Your task to perform on an android device: toggle translation in the chrome app Image 0: 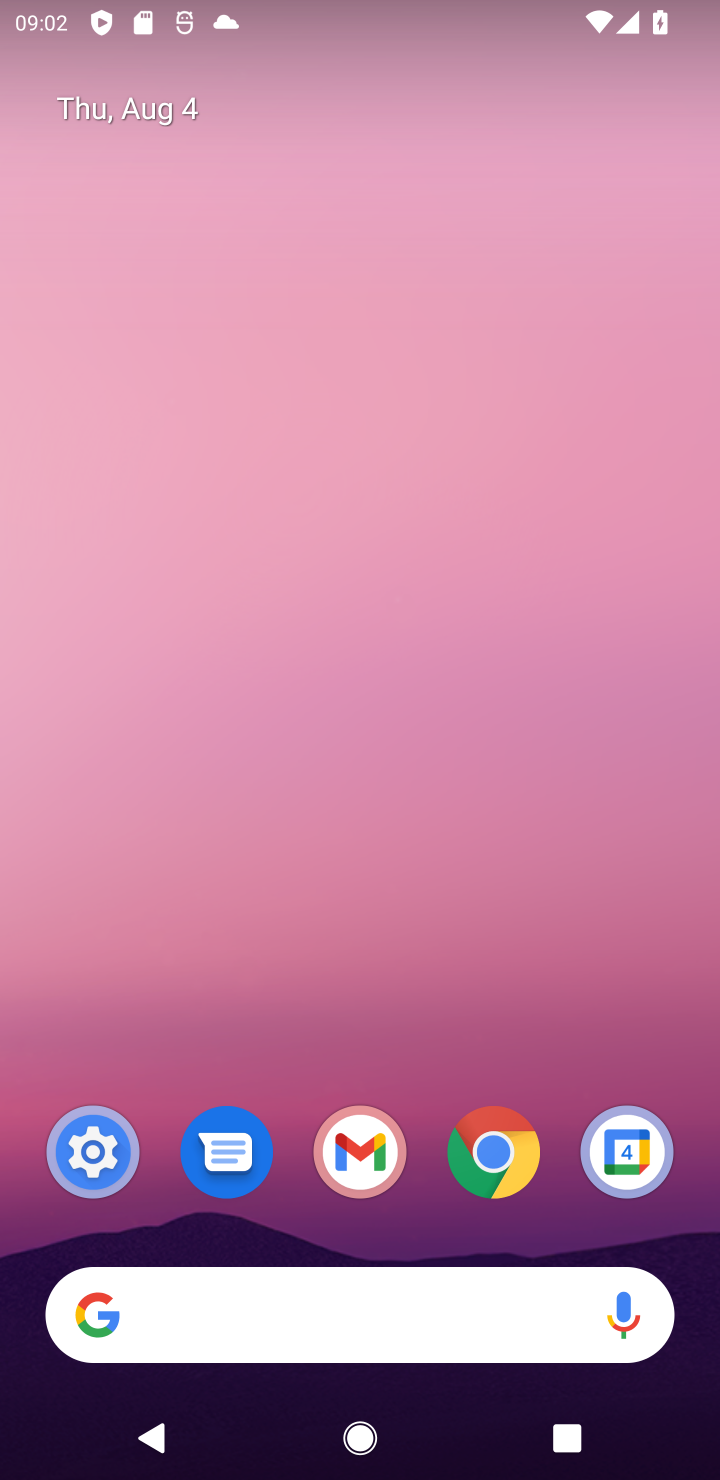
Step 0: click (489, 1168)
Your task to perform on an android device: toggle translation in the chrome app Image 1: 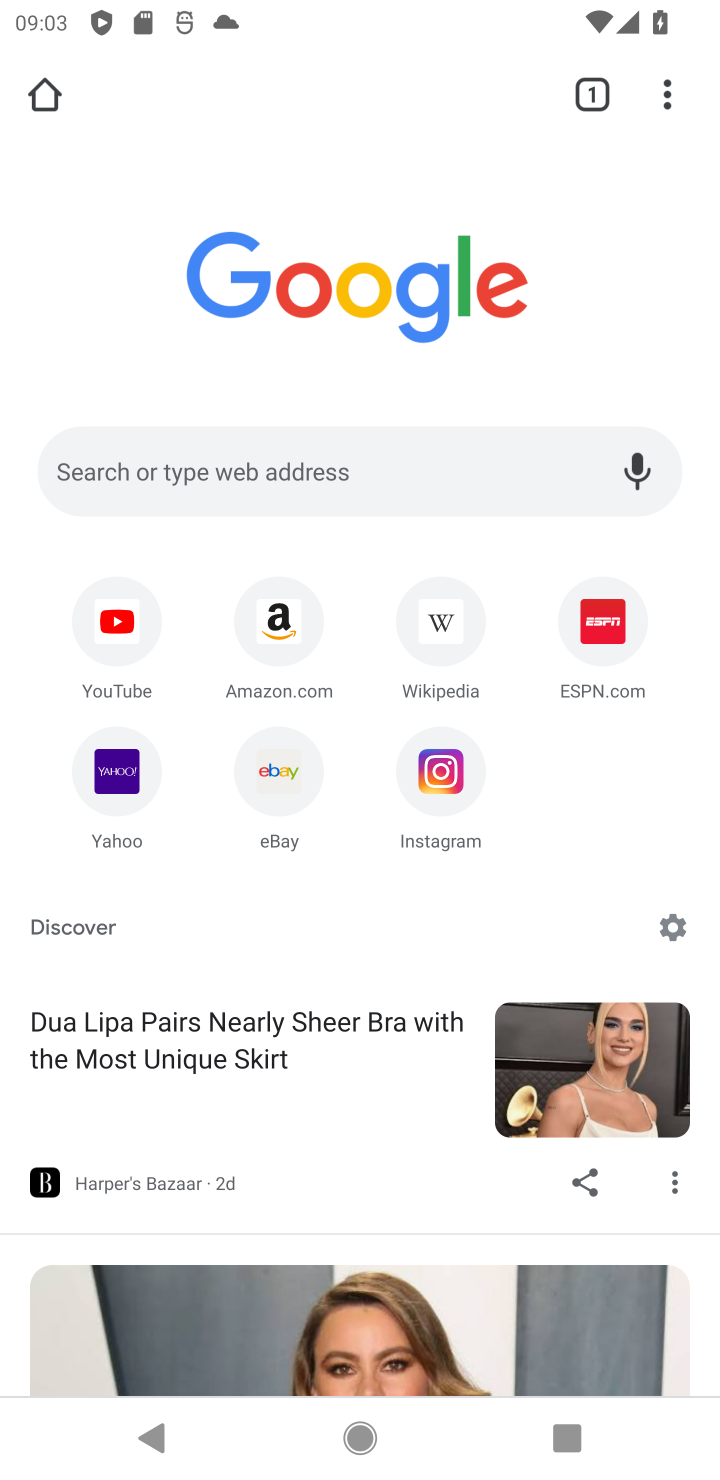
Step 1: click (661, 77)
Your task to perform on an android device: toggle translation in the chrome app Image 2: 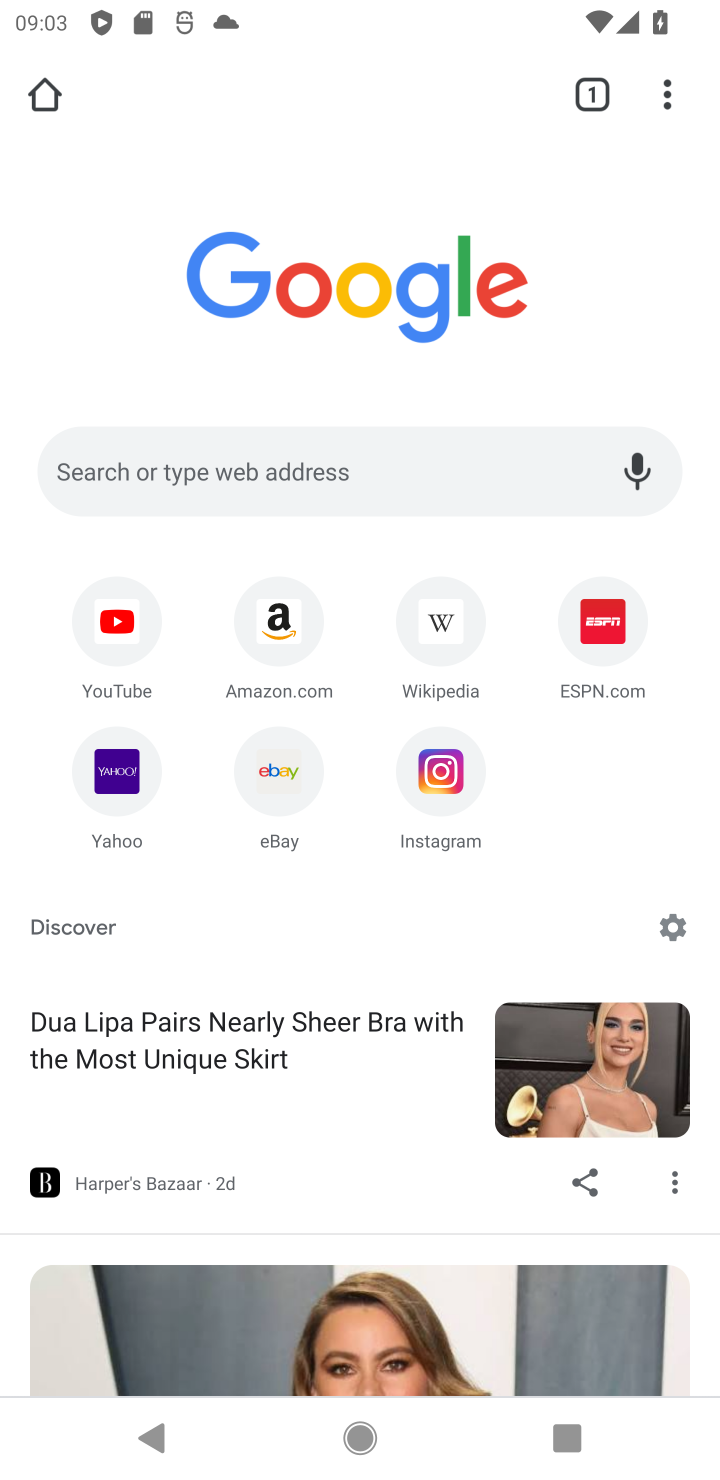
Step 2: click (373, 981)
Your task to perform on an android device: toggle translation in the chrome app Image 3: 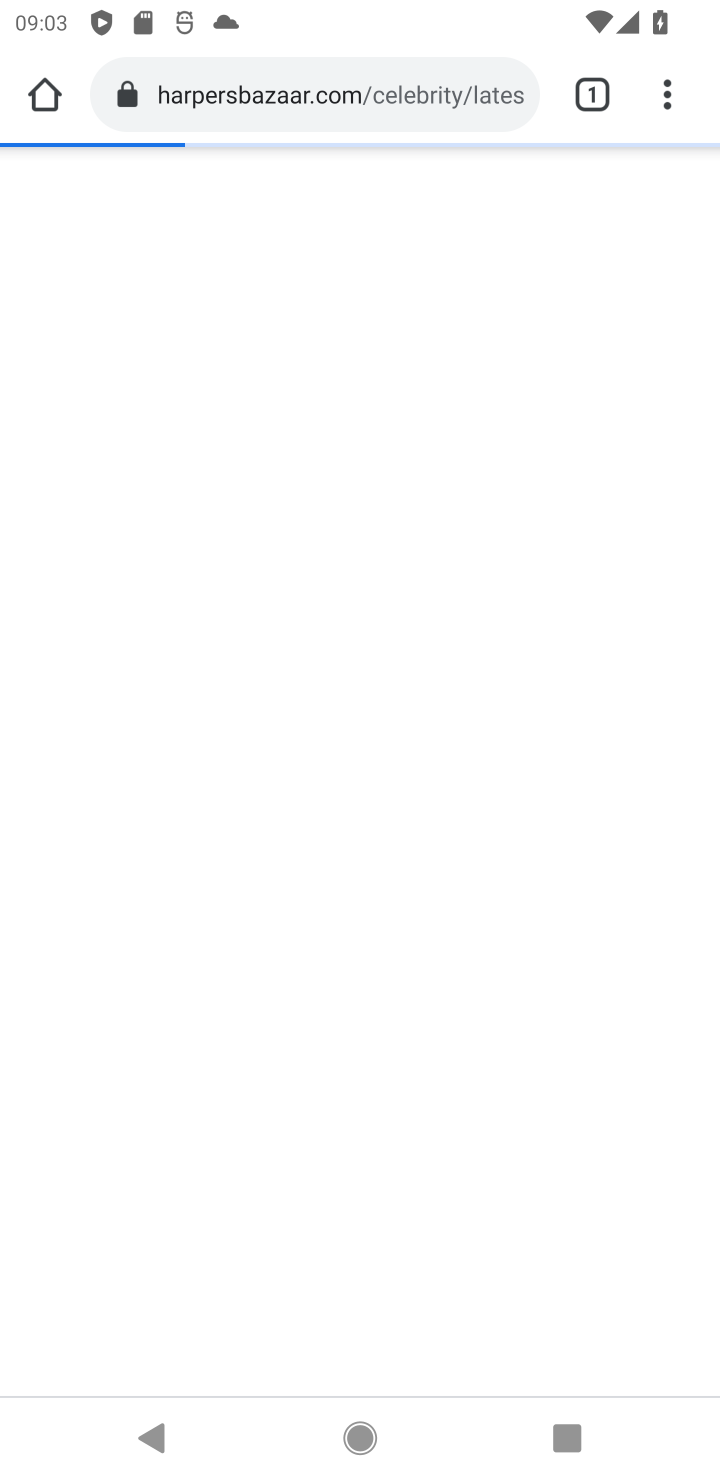
Step 3: click (671, 88)
Your task to perform on an android device: toggle translation in the chrome app Image 4: 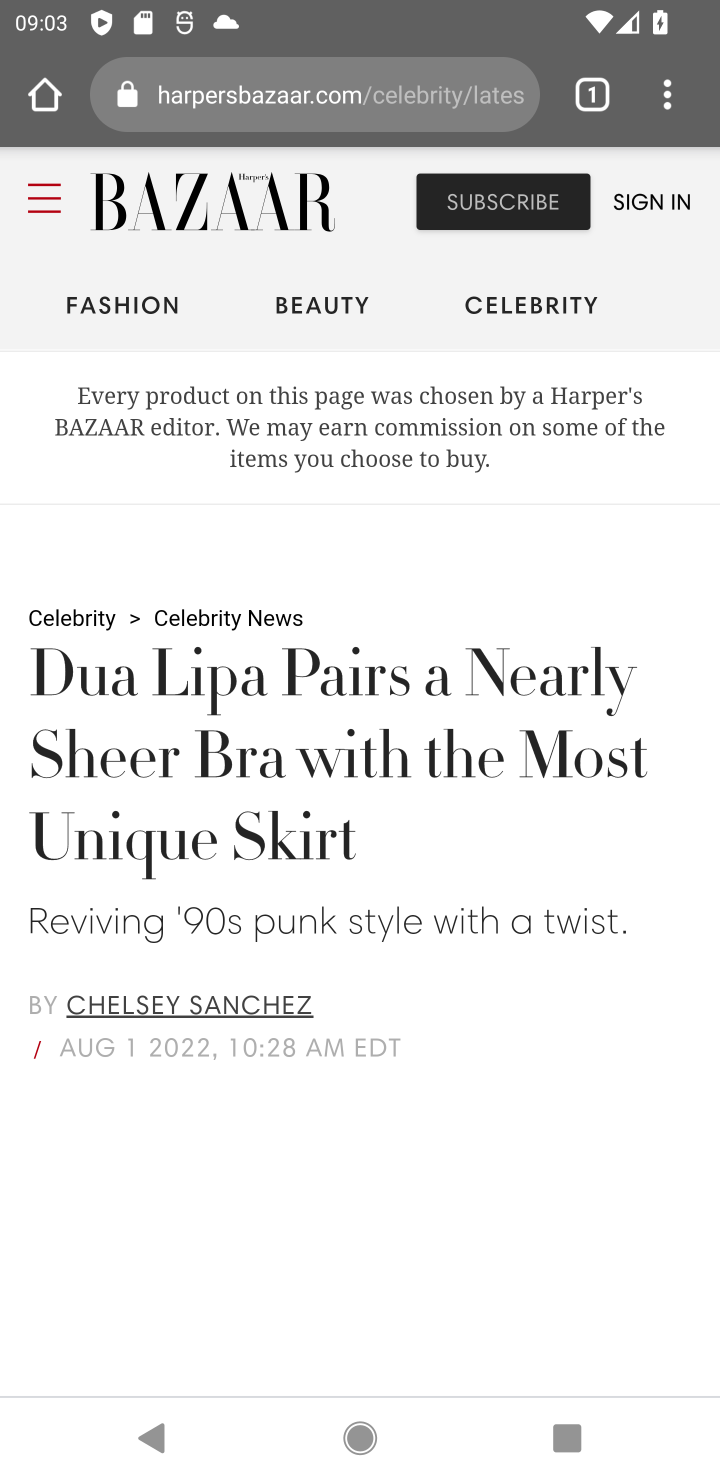
Step 4: click (660, 101)
Your task to perform on an android device: toggle translation in the chrome app Image 5: 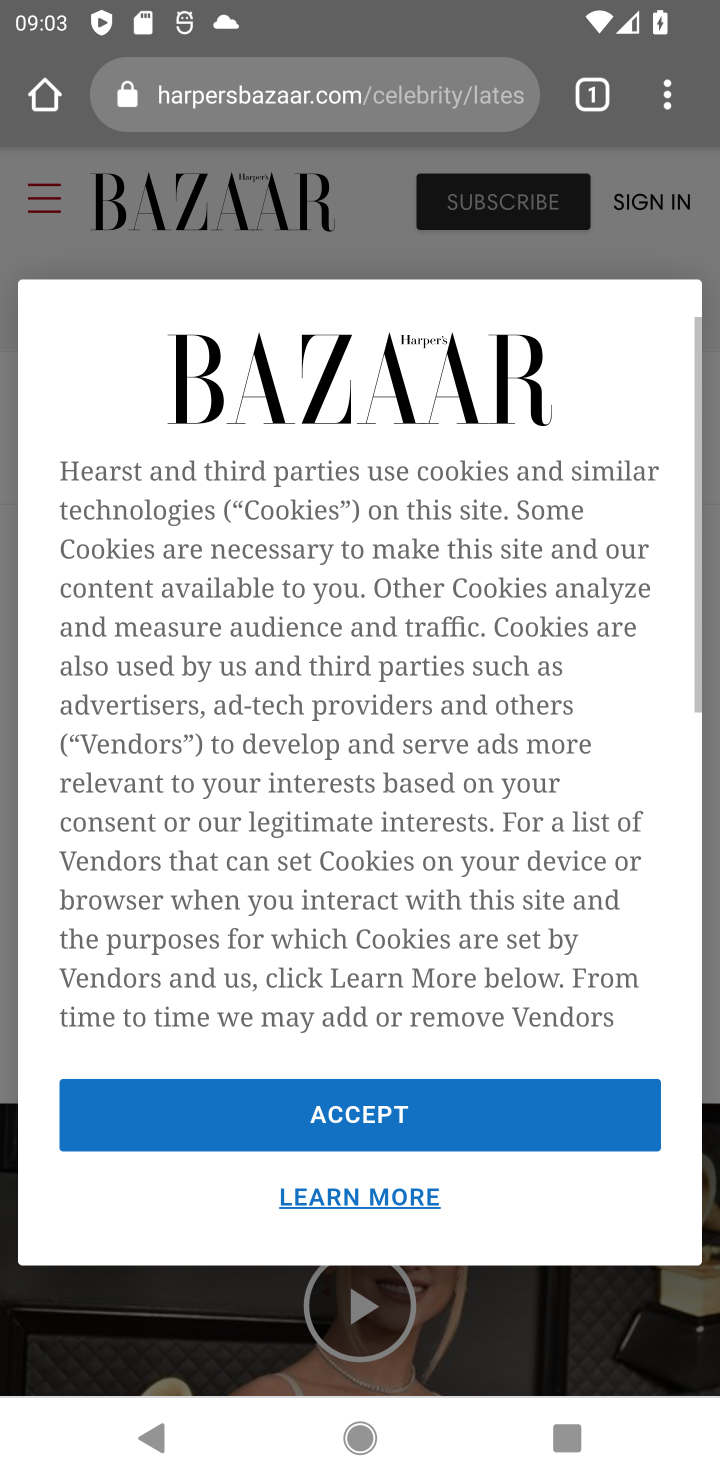
Step 5: task complete